Your task to perform on an android device: refresh tabs in the chrome app Image 0: 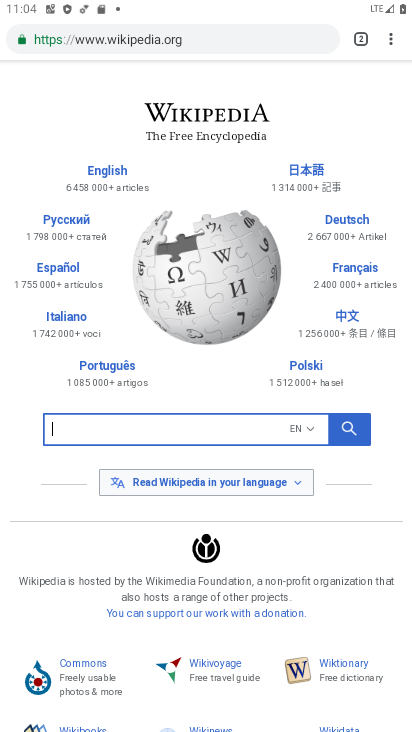
Step 0: press home button
Your task to perform on an android device: refresh tabs in the chrome app Image 1: 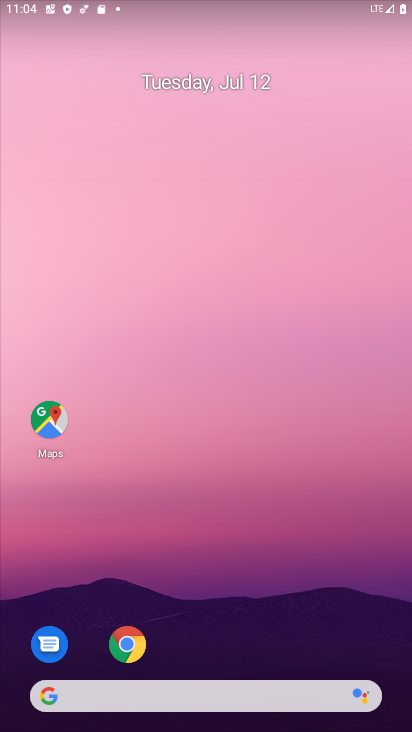
Step 1: click (128, 652)
Your task to perform on an android device: refresh tabs in the chrome app Image 2: 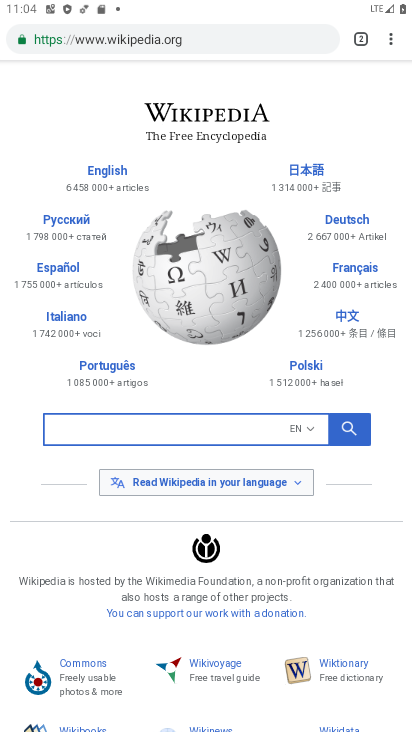
Step 2: click (389, 39)
Your task to perform on an android device: refresh tabs in the chrome app Image 3: 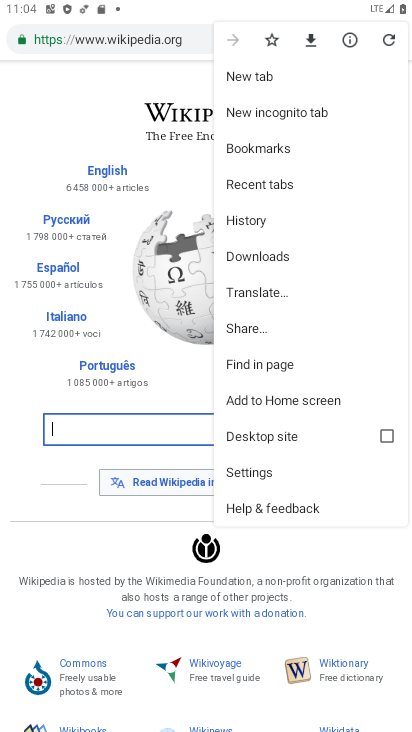
Step 3: click (389, 39)
Your task to perform on an android device: refresh tabs in the chrome app Image 4: 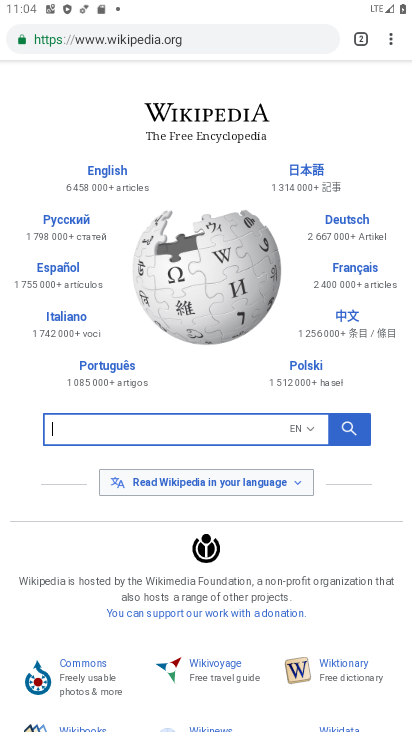
Step 4: task complete